Your task to perform on an android device: turn on showing notifications on the lock screen Image 0: 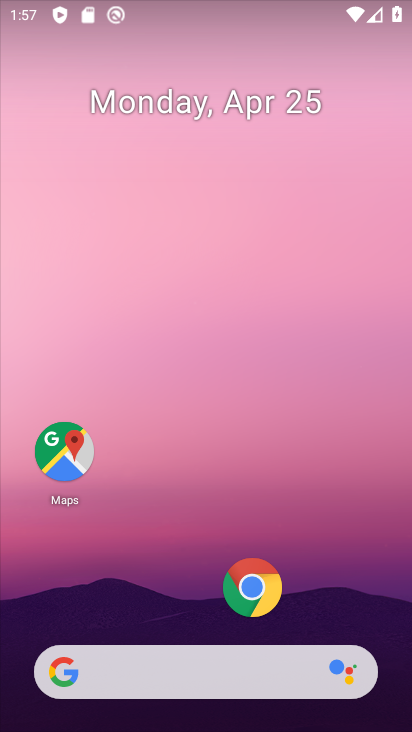
Step 0: press home button
Your task to perform on an android device: turn on showing notifications on the lock screen Image 1: 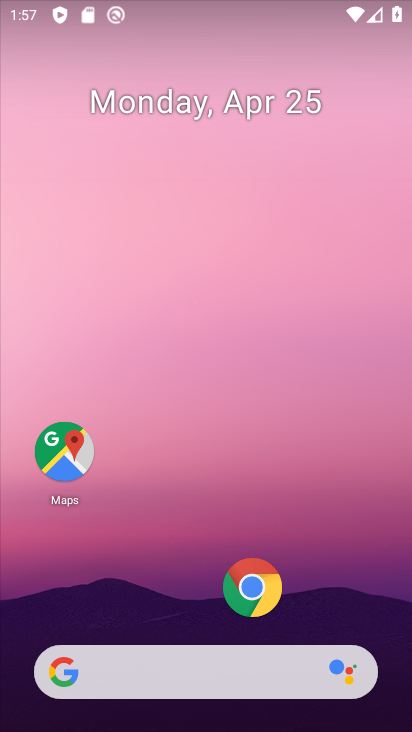
Step 1: drag from (199, 618) to (187, 85)
Your task to perform on an android device: turn on showing notifications on the lock screen Image 2: 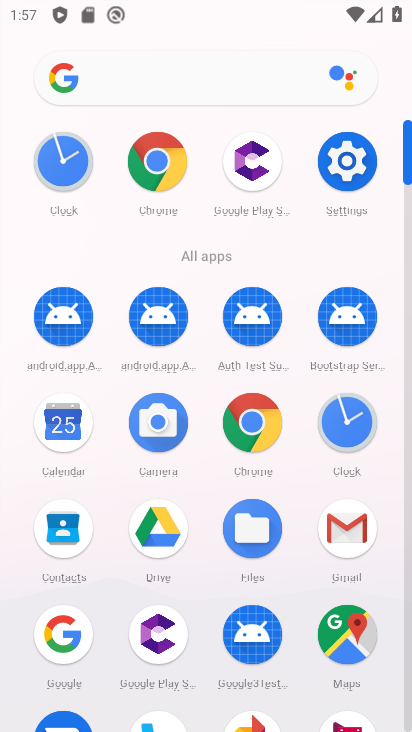
Step 2: click (344, 155)
Your task to perform on an android device: turn on showing notifications on the lock screen Image 3: 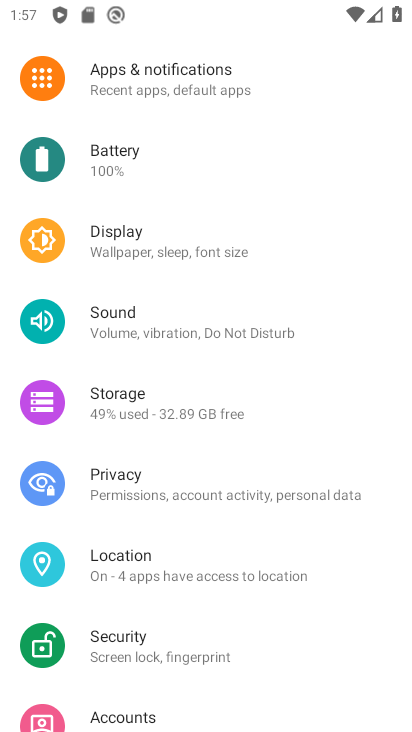
Step 3: click (151, 80)
Your task to perform on an android device: turn on showing notifications on the lock screen Image 4: 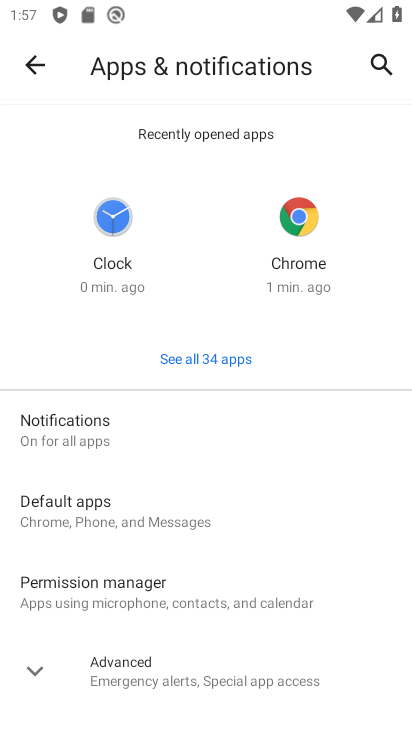
Step 4: click (134, 428)
Your task to perform on an android device: turn on showing notifications on the lock screen Image 5: 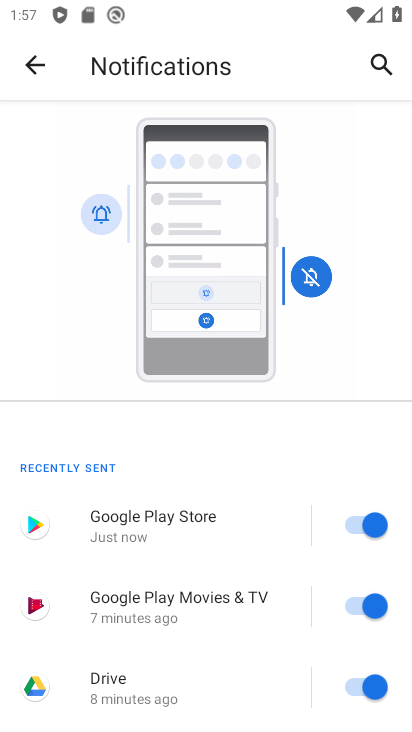
Step 5: drag from (248, 647) to (242, 188)
Your task to perform on an android device: turn on showing notifications on the lock screen Image 6: 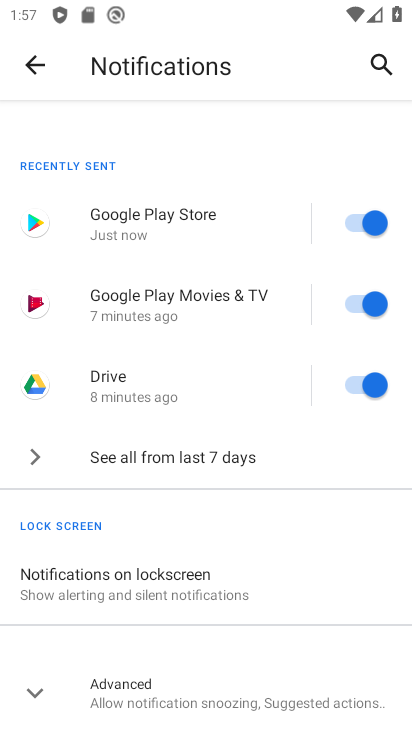
Step 6: click (228, 581)
Your task to perform on an android device: turn on showing notifications on the lock screen Image 7: 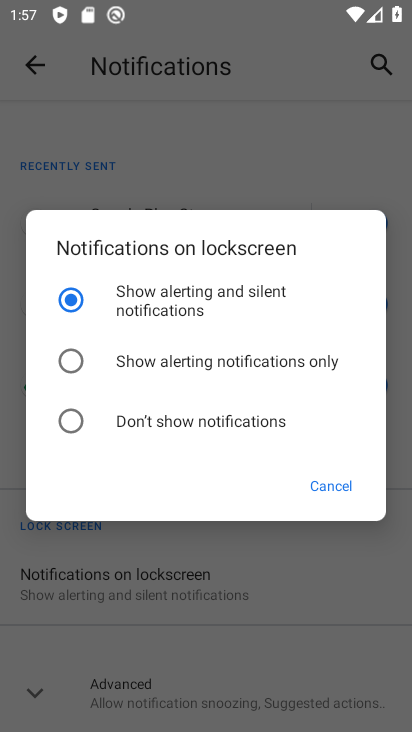
Step 7: click (74, 354)
Your task to perform on an android device: turn on showing notifications on the lock screen Image 8: 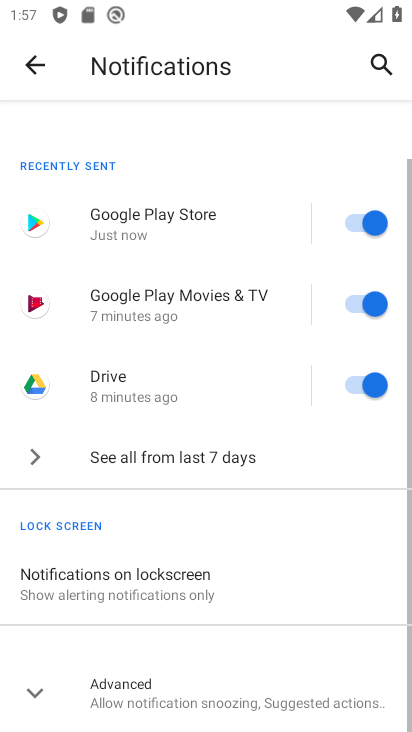
Step 8: task complete